Your task to perform on an android device: turn on priority inbox in the gmail app Image 0: 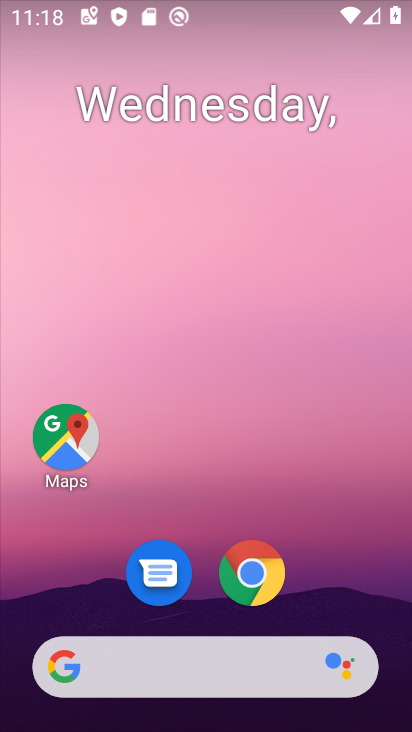
Step 0: drag from (248, 628) to (195, 234)
Your task to perform on an android device: turn on priority inbox in the gmail app Image 1: 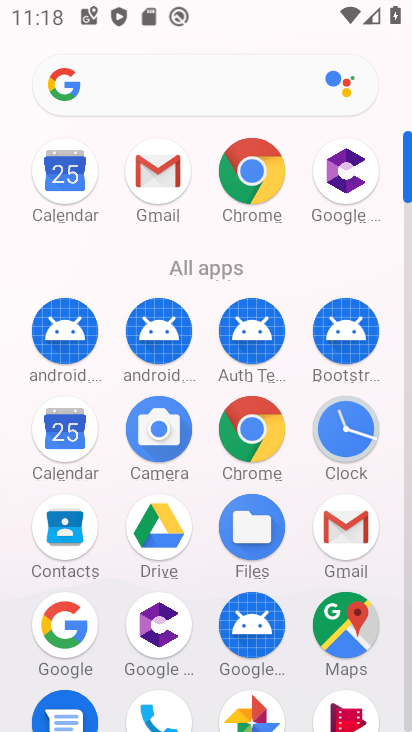
Step 1: click (361, 536)
Your task to perform on an android device: turn on priority inbox in the gmail app Image 2: 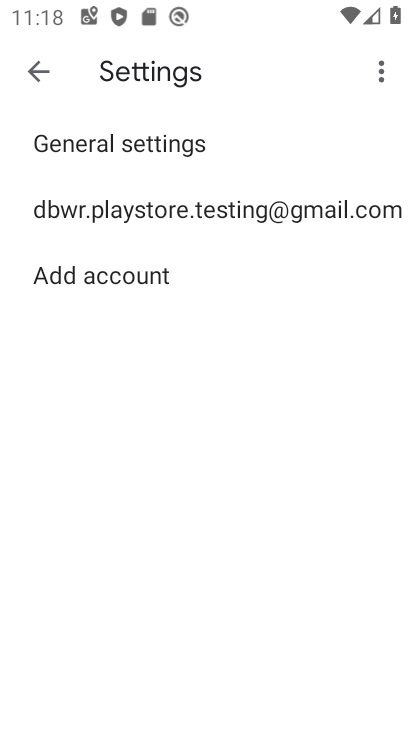
Step 2: click (178, 213)
Your task to perform on an android device: turn on priority inbox in the gmail app Image 3: 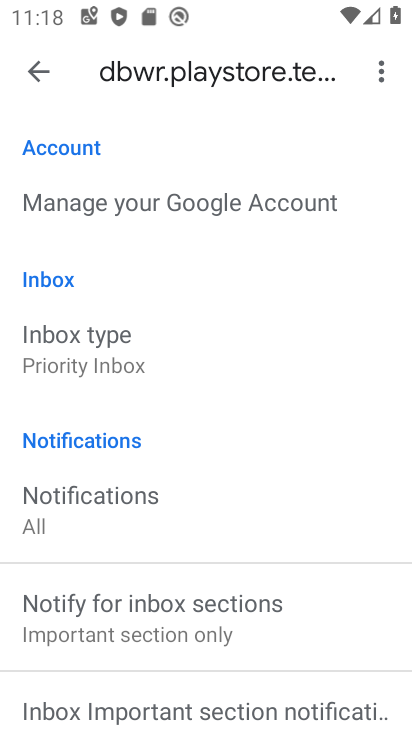
Step 3: task complete